Your task to perform on an android device: Open settings on Google Maps Image 0: 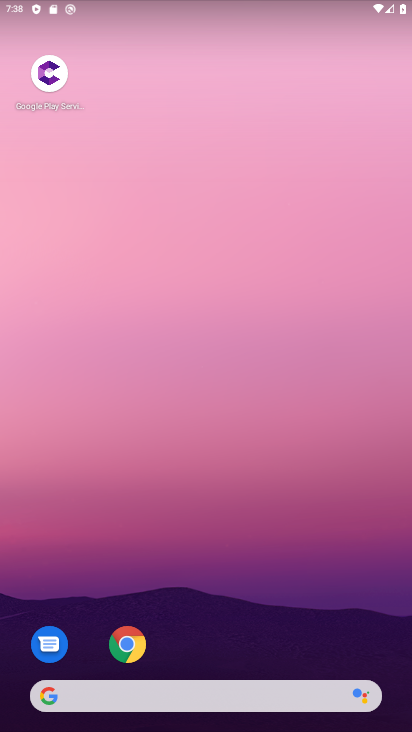
Step 0: drag from (190, 717) to (210, 611)
Your task to perform on an android device: Open settings on Google Maps Image 1: 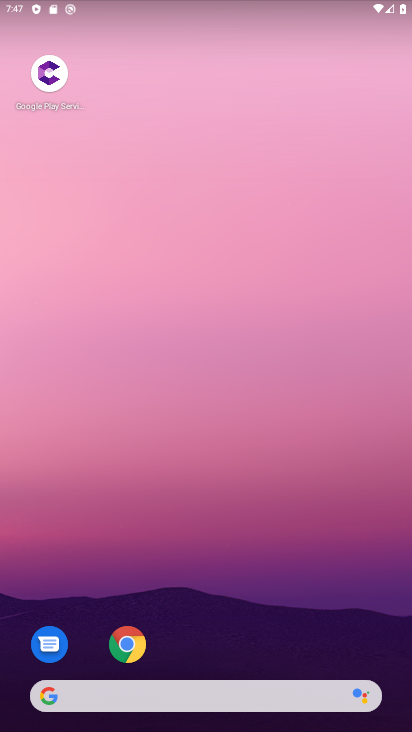
Step 1: drag from (211, 708) to (259, 125)
Your task to perform on an android device: Open settings on Google Maps Image 2: 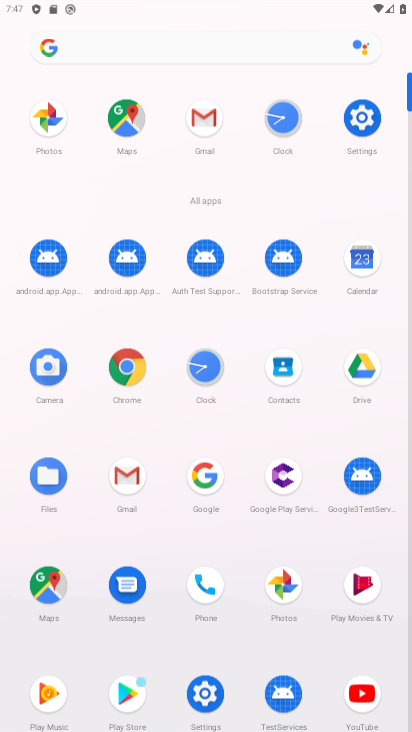
Step 2: drag from (225, 730) to (223, 192)
Your task to perform on an android device: Open settings on Google Maps Image 3: 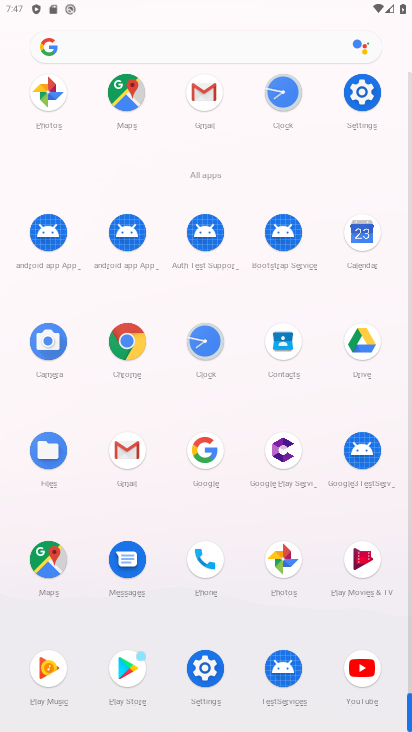
Step 3: click (123, 92)
Your task to perform on an android device: Open settings on Google Maps Image 4: 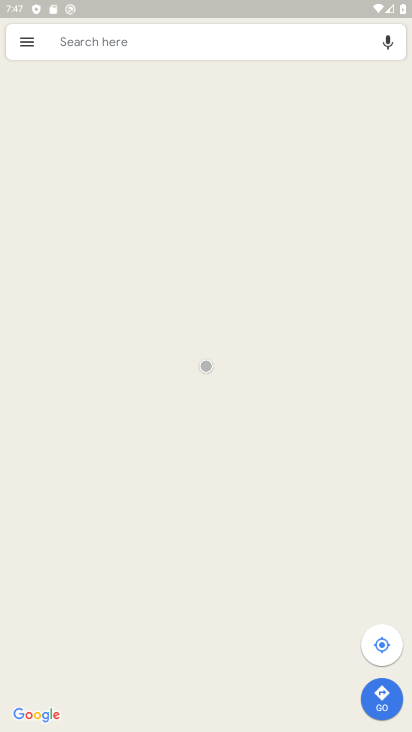
Step 4: click (26, 46)
Your task to perform on an android device: Open settings on Google Maps Image 5: 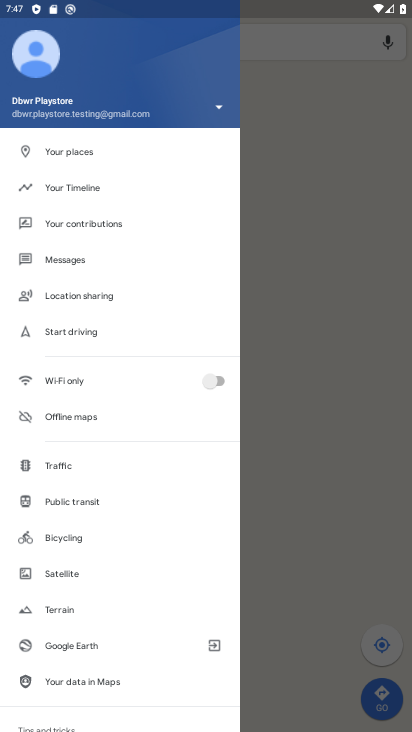
Step 5: drag from (84, 627) to (159, 165)
Your task to perform on an android device: Open settings on Google Maps Image 6: 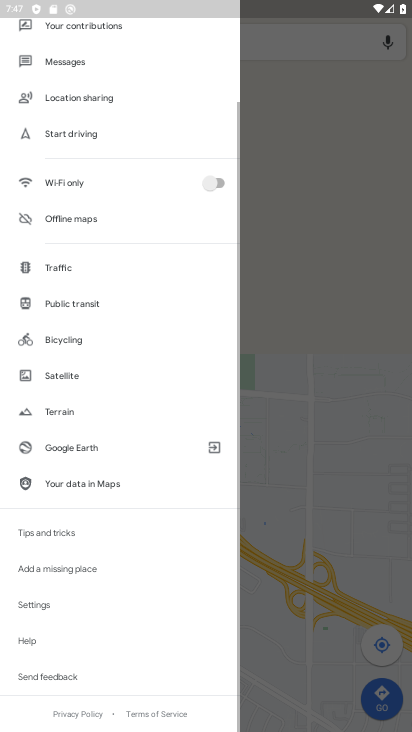
Step 6: click (50, 603)
Your task to perform on an android device: Open settings on Google Maps Image 7: 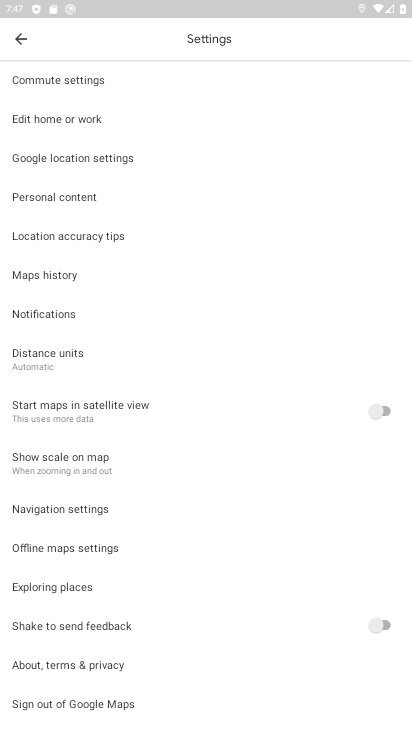
Step 7: task complete